Your task to perform on an android device: Open network settings Image 0: 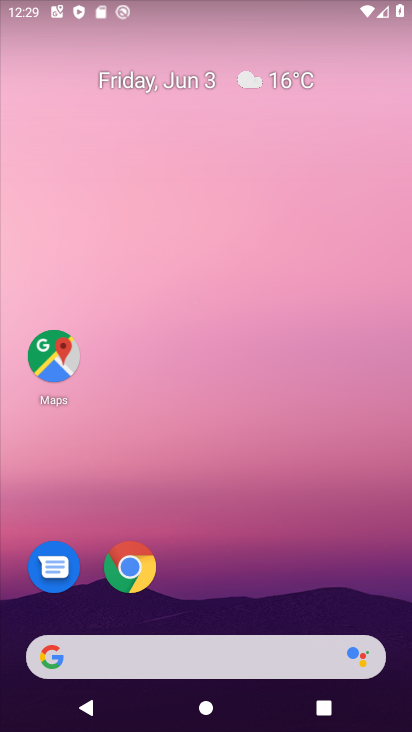
Step 0: drag from (348, 588) to (395, 236)
Your task to perform on an android device: Open network settings Image 1: 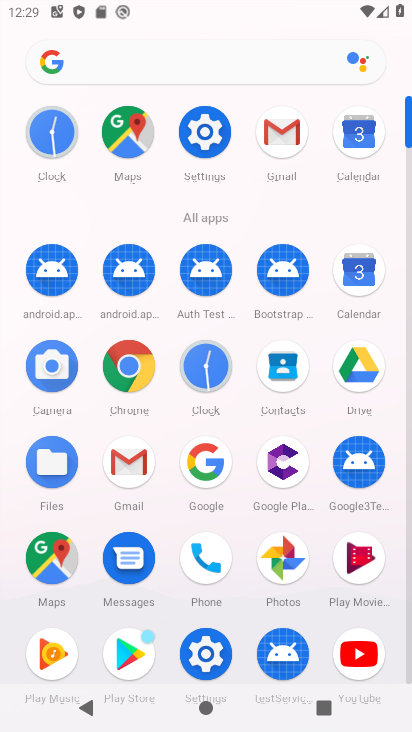
Step 1: click (189, 661)
Your task to perform on an android device: Open network settings Image 2: 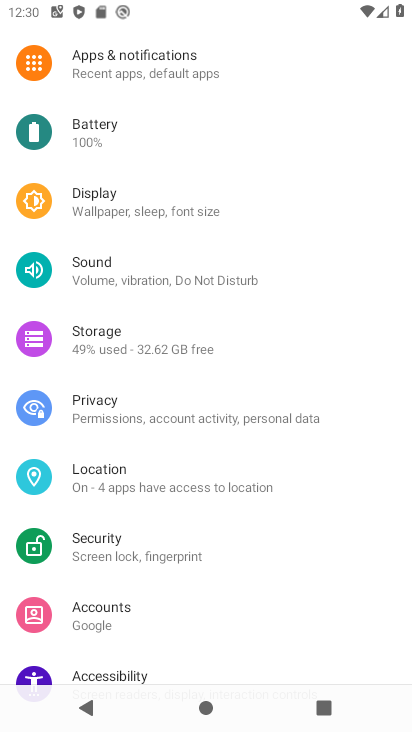
Step 2: drag from (201, 103) to (184, 404)
Your task to perform on an android device: Open network settings Image 3: 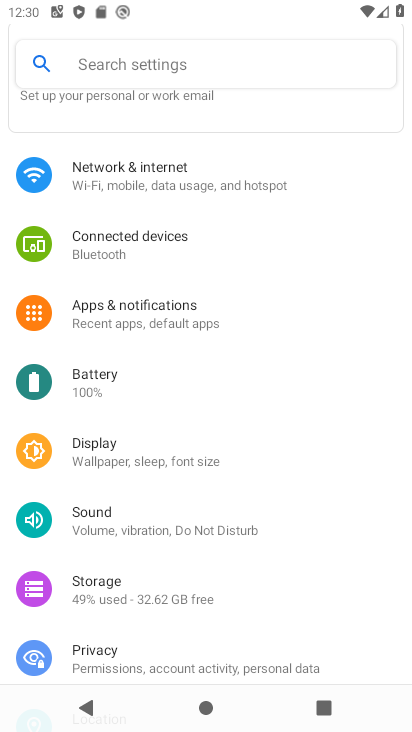
Step 3: click (191, 169)
Your task to perform on an android device: Open network settings Image 4: 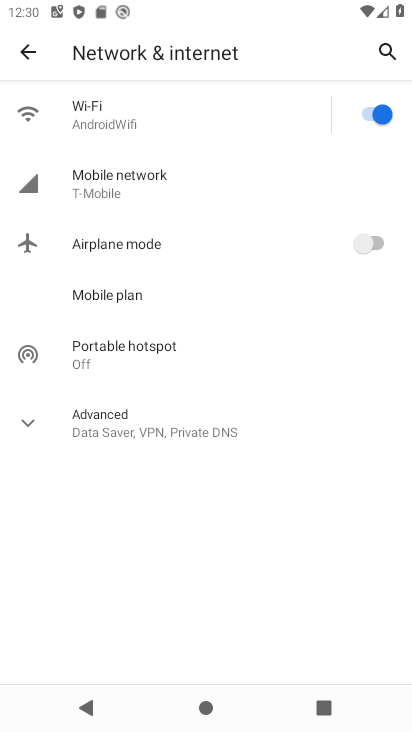
Step 4: click (191, 169)
Your task to perform on an android device: Open network settings Image 5: 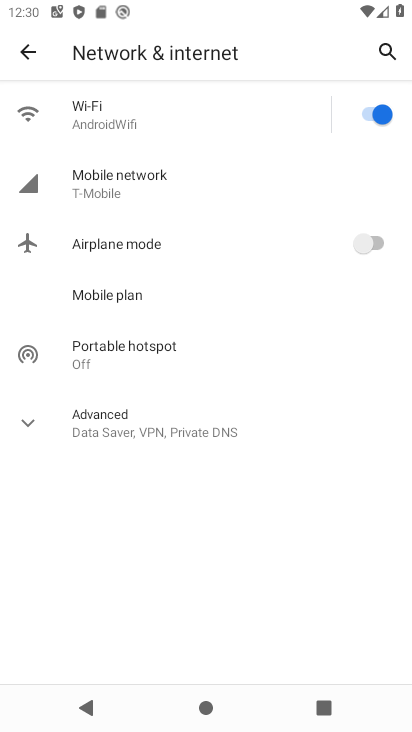
Step 5: click (191, 169)
Your task to perform on an android device: Open network settings Image 6: 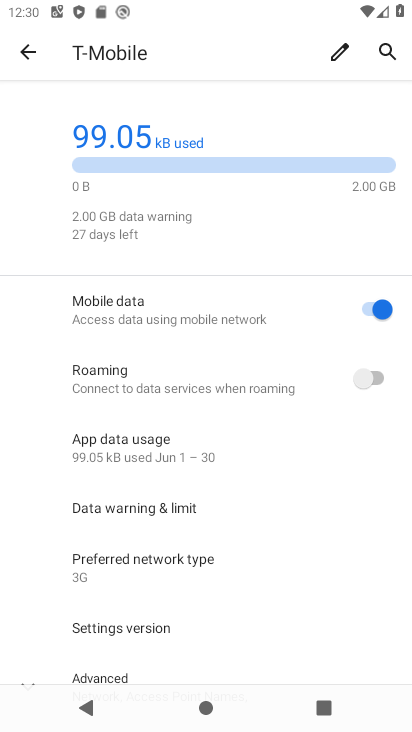
Step 6: task complete